Your task to perform on an android device: change alarm snooze length Image 0: 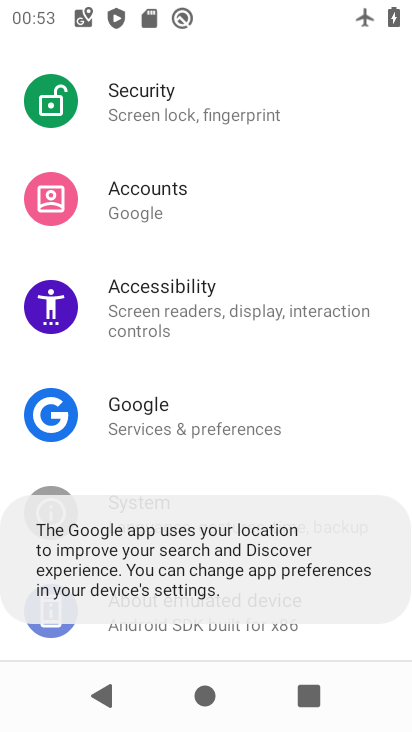
Step 0: press home button
Your task to perform on an android device: change alarm snooze length Image 1: 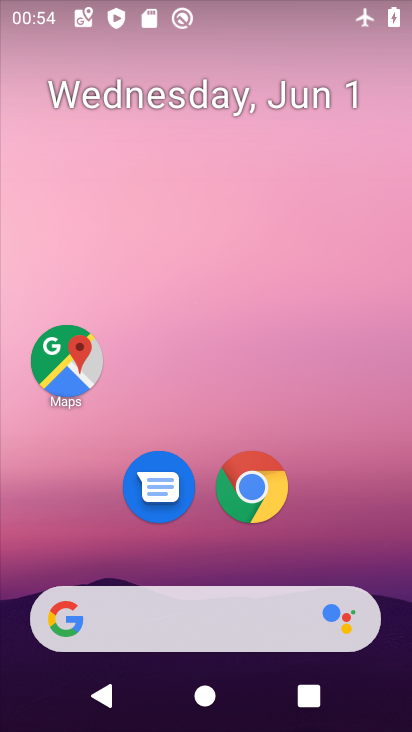
Step 1: drag from (304, 592) to (274, 168)
Your task to perform on an android device: change alarm snooze length Image 2: 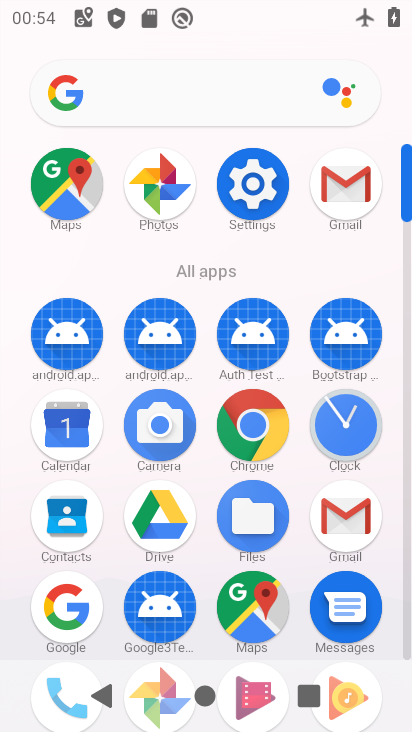
Step 2: click (341, 431)
Your task to perform on an android device: change alarm snooze length Image 3: 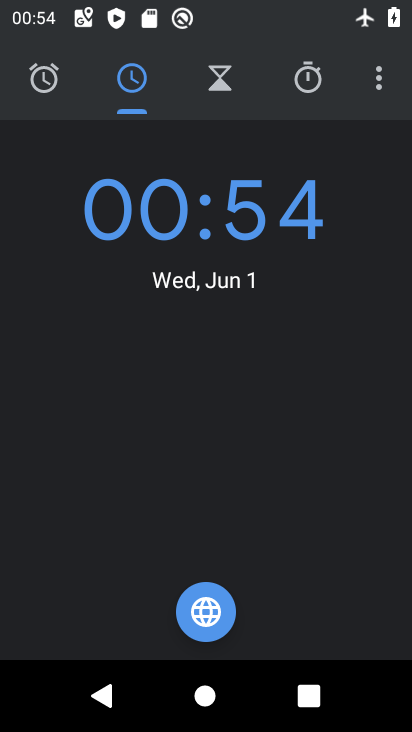
Step 3: click (365, 77)
Your task to perform on an android device: change alarm snooze length Image 4: 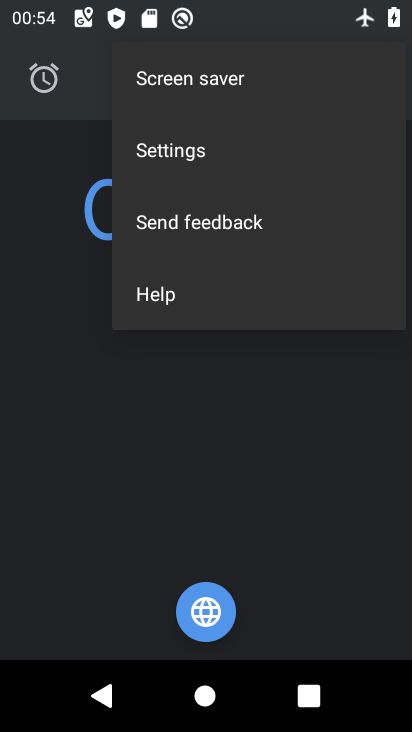
Step 4: click (167, 163)
Your task to perform on an android device: change alarm snooze length Image 5: 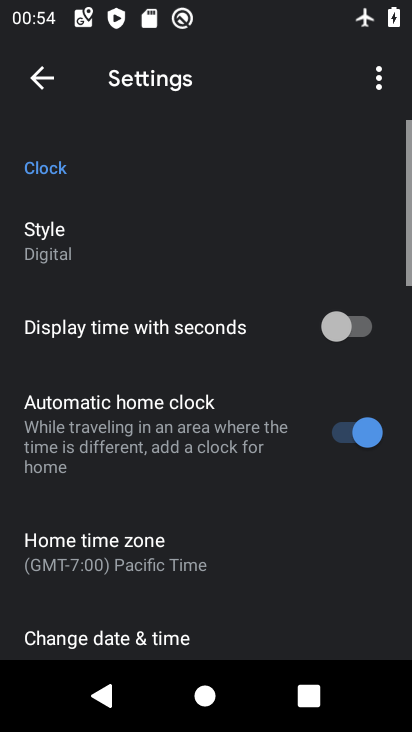
Step 5: drag from (160, 506) to (159, 148)
Your task to perform on an android device: change alarm snooze length Image 6: 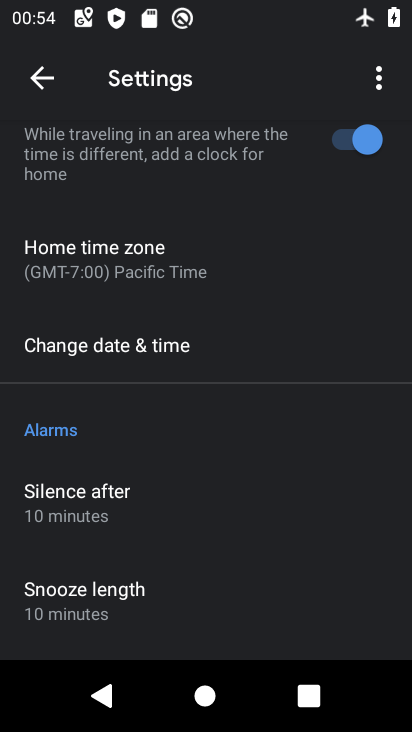
Step 6: drag from (156, 555) to (183, 273)
Your task to perform on an android device: change alarm snooze length Image 7: 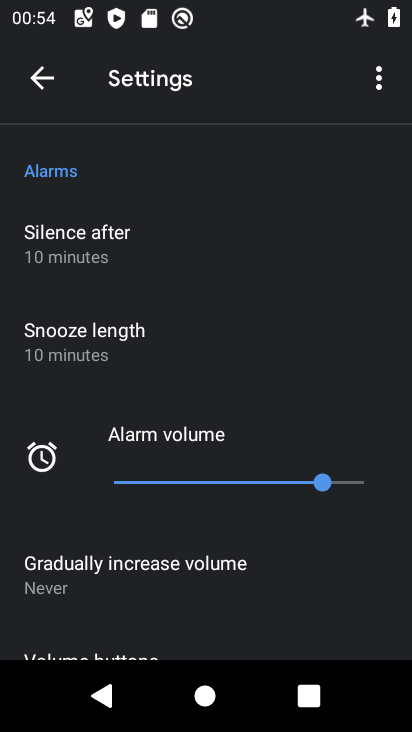
Step 7: click (130, 328)
Your task to perform on an android device: change alarm snooze length Image 8: 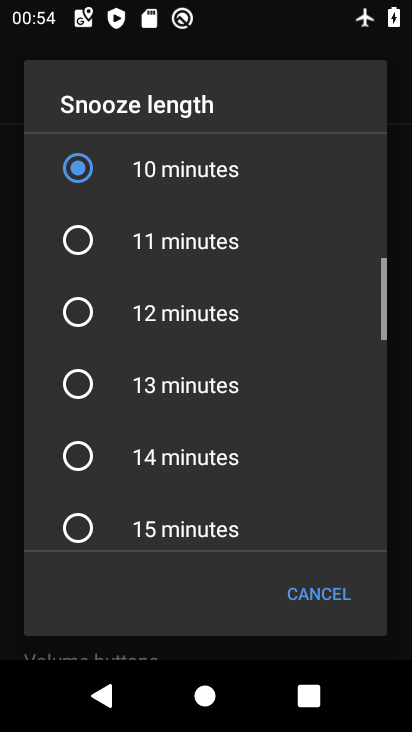
Step 8: click (180, 464)
Your task to perform on an android device: change alarm snooze length Image 9: 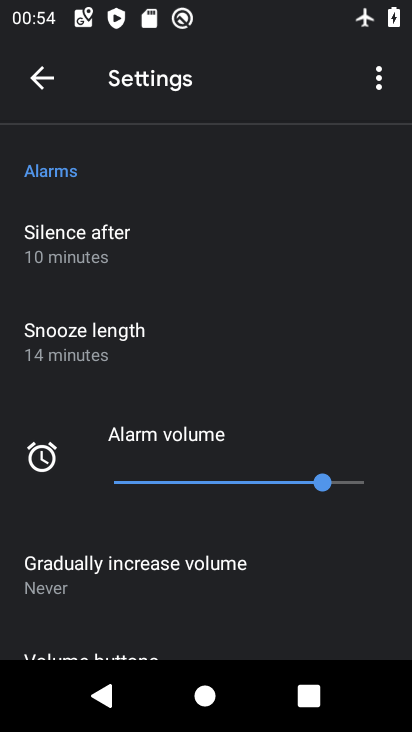
Step 9: task complete